Your task to perform on an android device: toggle show notifications on the lock screen Image 0: 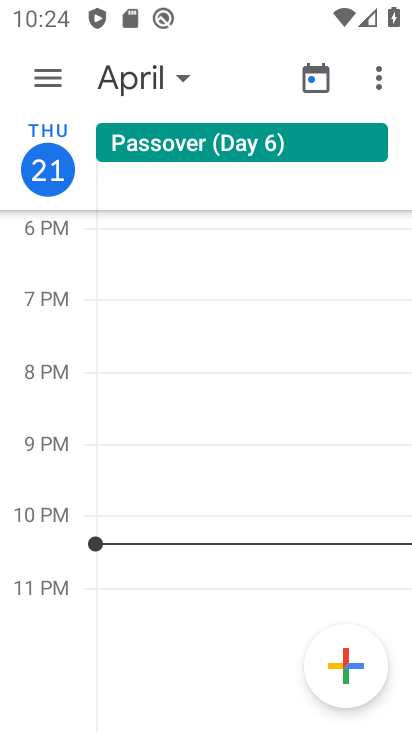
Step 0: press home button
Your task to perform on an android device: toggle show notifications on the lock screen Image 1: 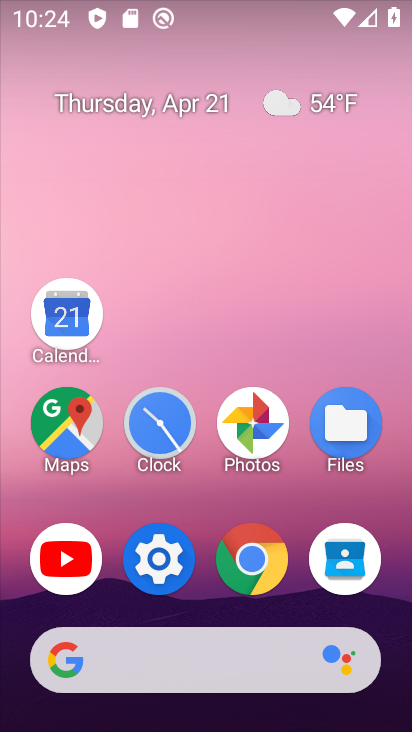
Step 1: click (157, 558)
Your task to perform on an android device: toggle show notifications on the lock screen Image 2: 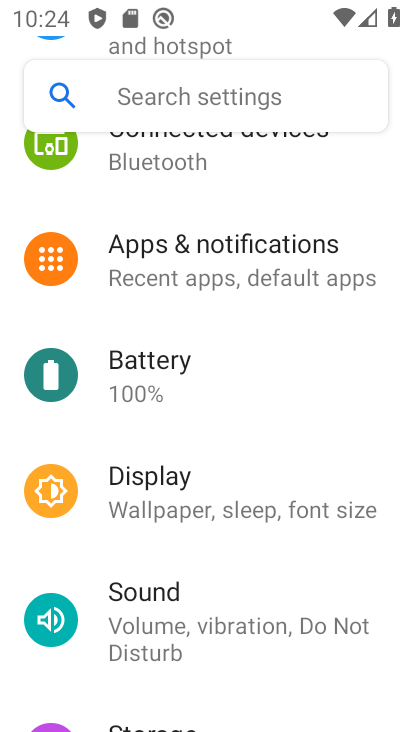
Step 2: click (202, 248)
Your task to perform on an android device: toggle show notifications on the lock screen Image 3: 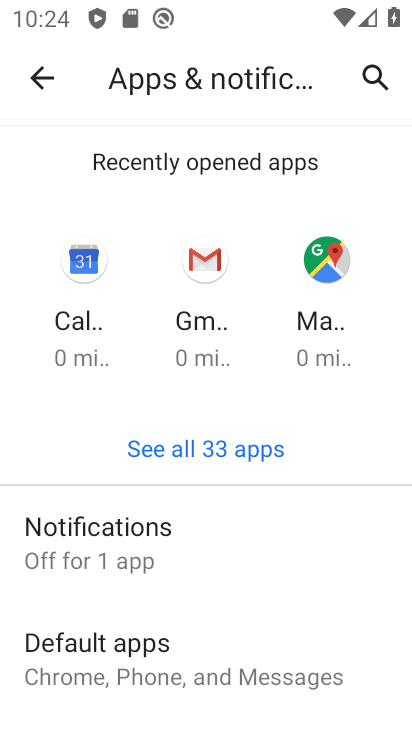
Step 3: click (107, 530)
Your task to perform on an android device: toggle show notifications on the lock screen Image 4: 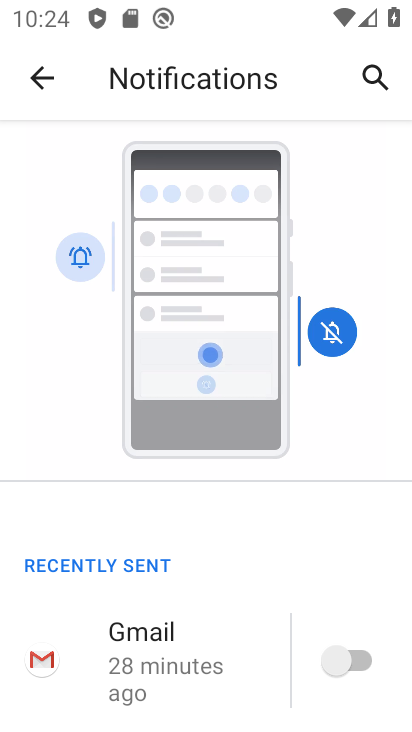
Step 4: drag from (265, 539) to (283, 120)
Your task to perform on an android device: toggle show notifications on the lock screen Image 5: 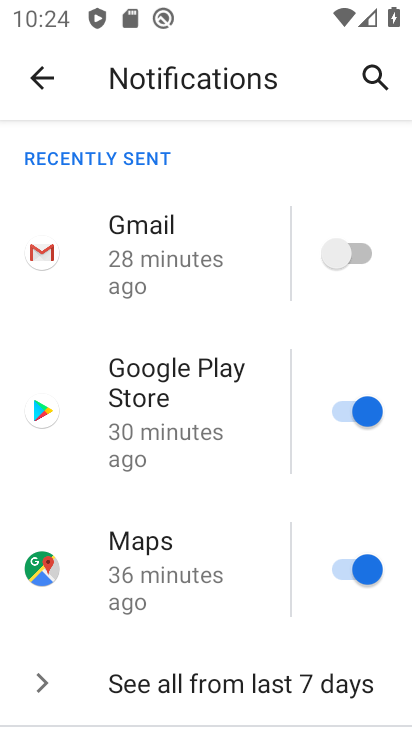
Step 5: drag from (228, 616) to (180, 62)
Your task to perform on an android device: toggle show notifications on the lock screen Image 6: 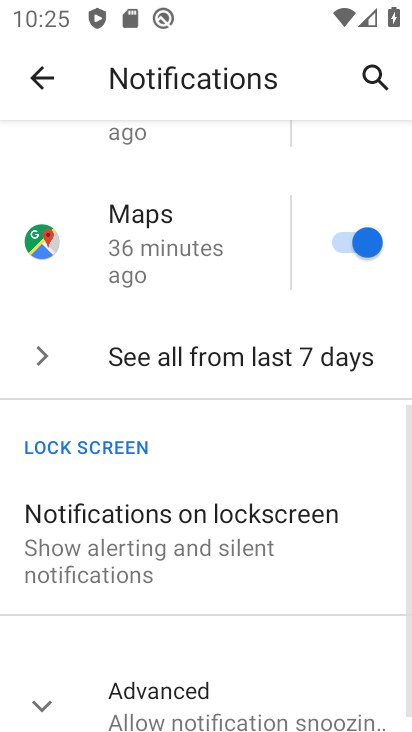
Step 6: click (168, 492)
Your task to perform on an android device: toggle show notifications on the lock screen Image 7: 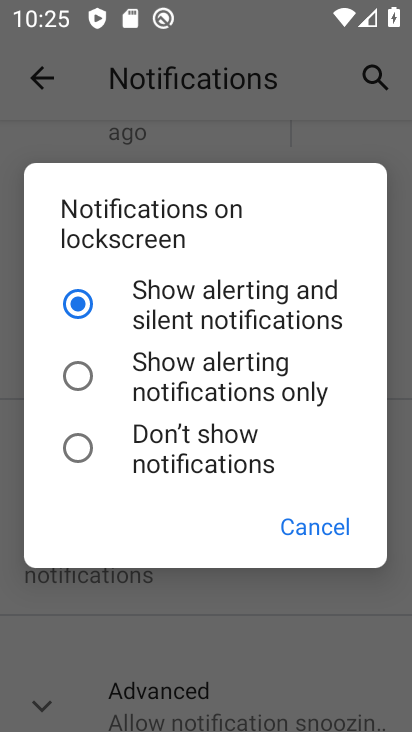
Step 7: click (74, 450)
Your task to perform on an android device: toggle show notifications on the lock screen Image 8: 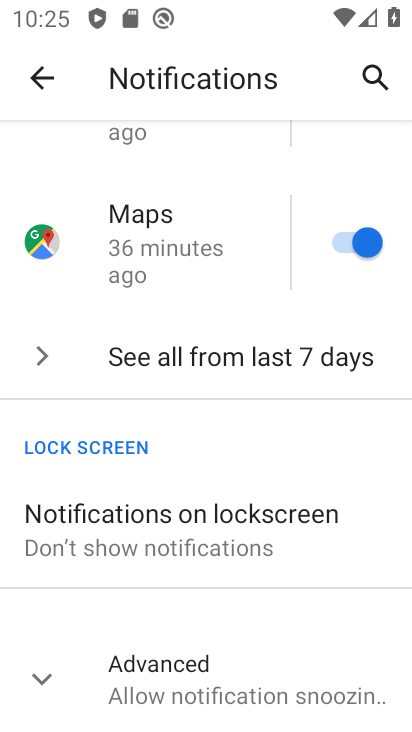
Step 8: task complete